Your task to perform on an android device: Is it going to rain tomorrow? Image 0: 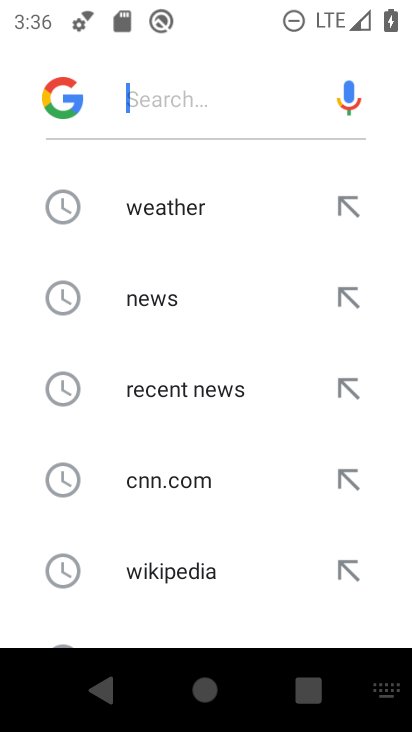
Step 0: click (195, 220)
Your task to perform on an android device: Is it going to rain tomorrow? Image 1: 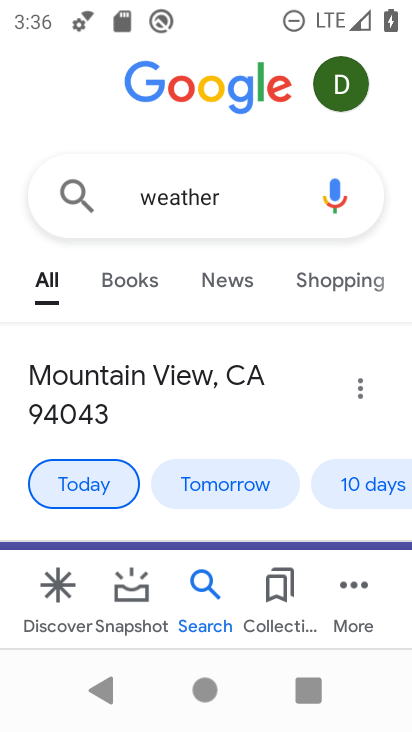
Step 1: click (236, 483)
Your task to perform on an android device: Is it going to rain tomorrow? Image 2: 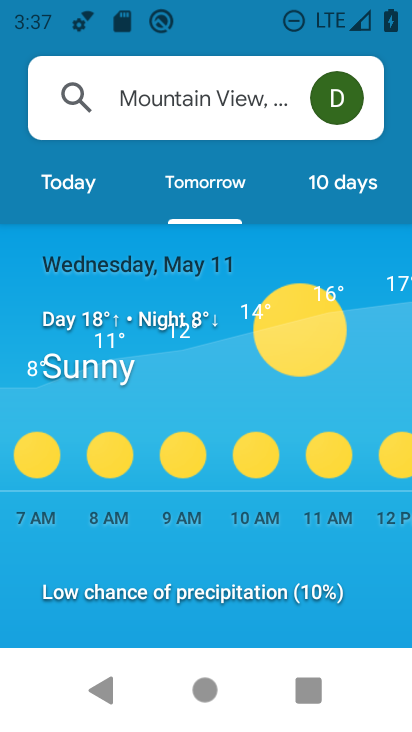
Step 2: task complete